Your task to perform on an android device: Search for logitech g pro on costco.com, select the first entry, and add it to the cart. Image 0: 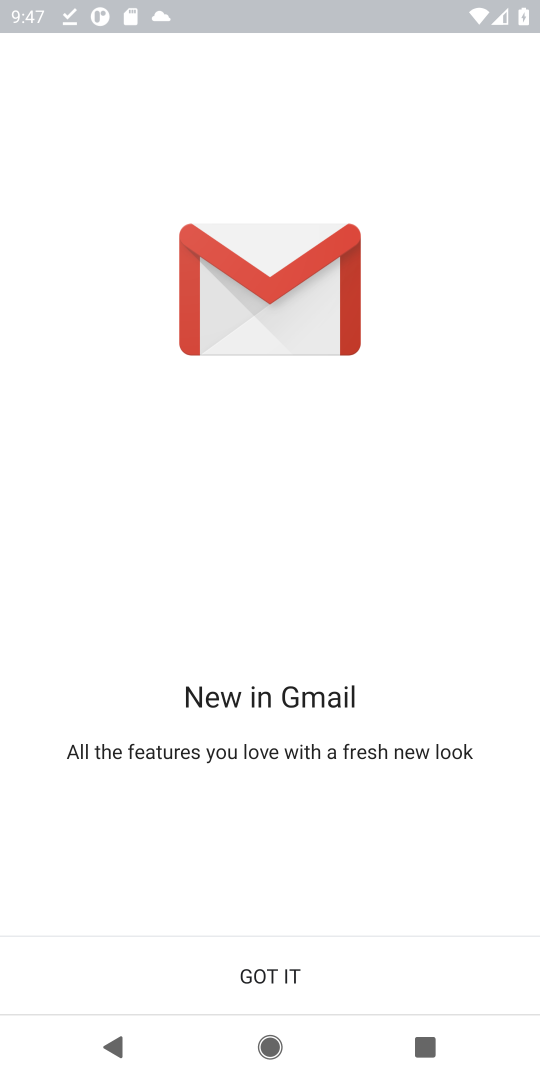
Step 0: press home button
Your task to perform on an android device: Search for logitech g pro on costco.com, select the first entry, and add it to the cart. Image 1: 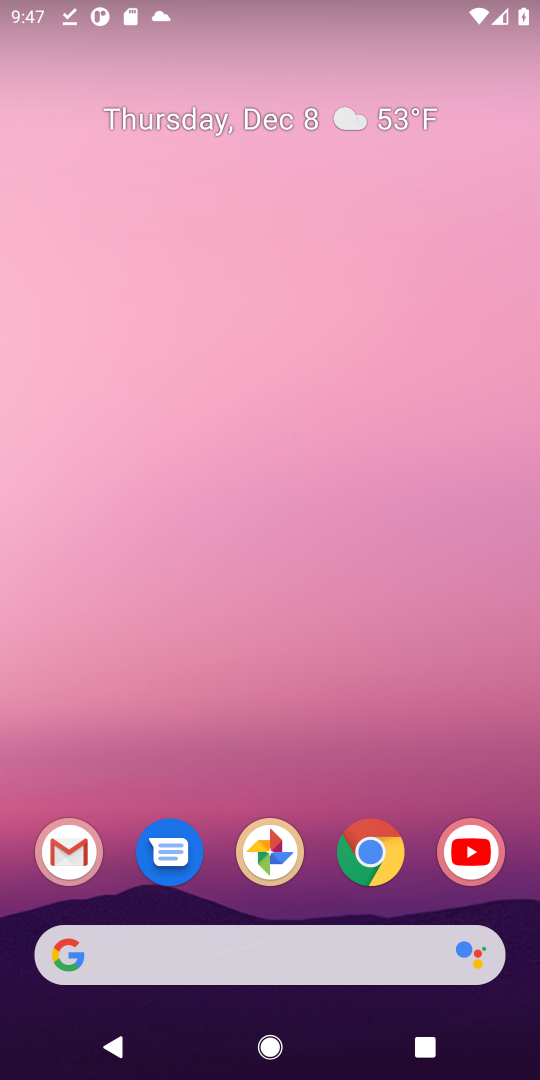
Step 1: click (219, 946)
Your task to perform on an android device: Search for logitech g pro on costco.com, select the first entry, and add it to the cart. Image 2: 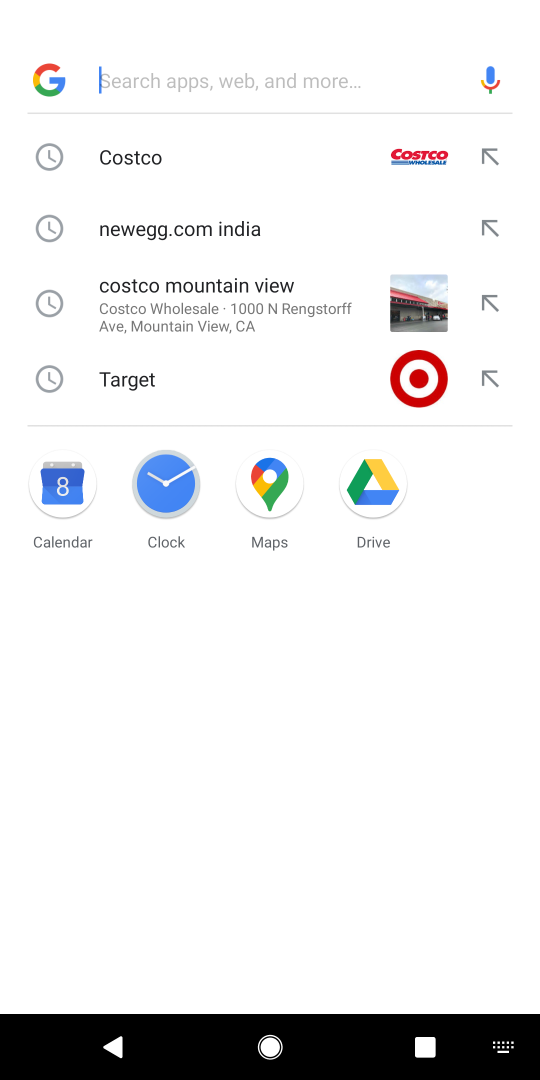
Step 2: click (151, 156)
Your task to perform on an android device: Search for logitech g pro on costco.com, select the first entry, and add it to the cart. Image 3: 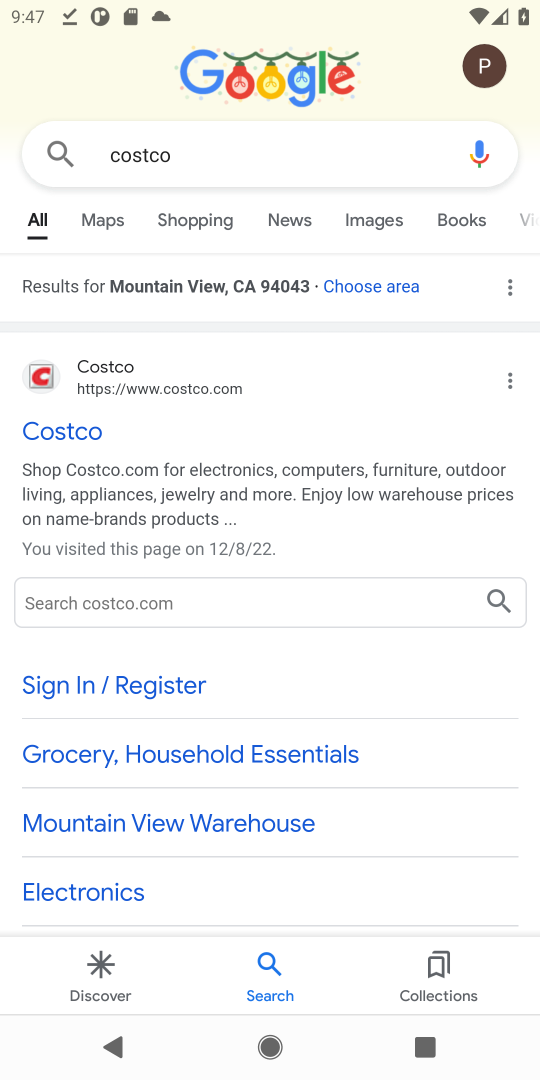
Step 3: click (27, 414)
Your task to perform on an android device: Search for logitech g pro on costco.com, select the first entry, and add it to the cart. Image 4: 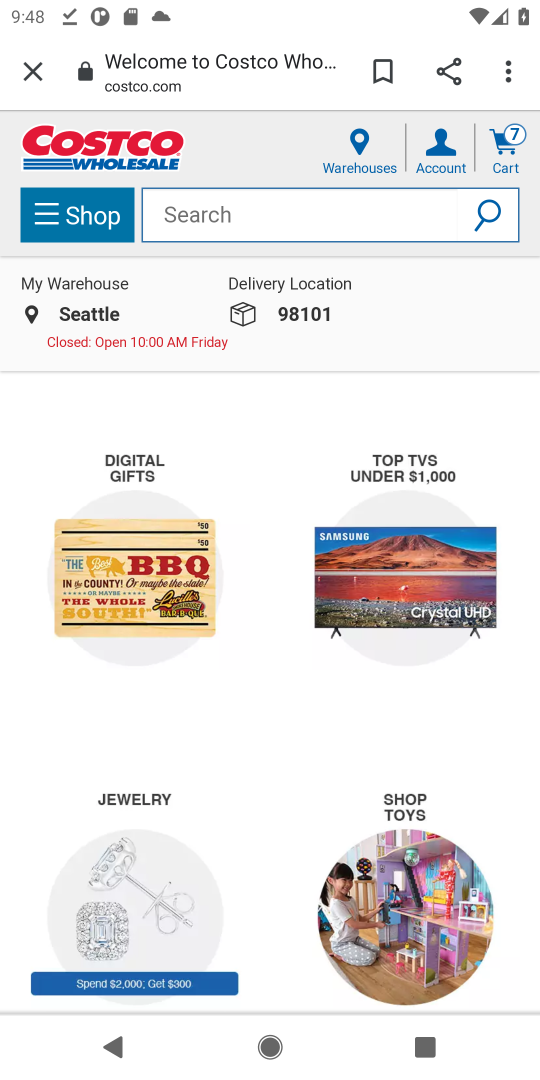
Step 4: click (300, 214)
Your task to perform on an android device: Search for logitech g pro on costco.com, select the first entry, and add it to the cart. Image 5: 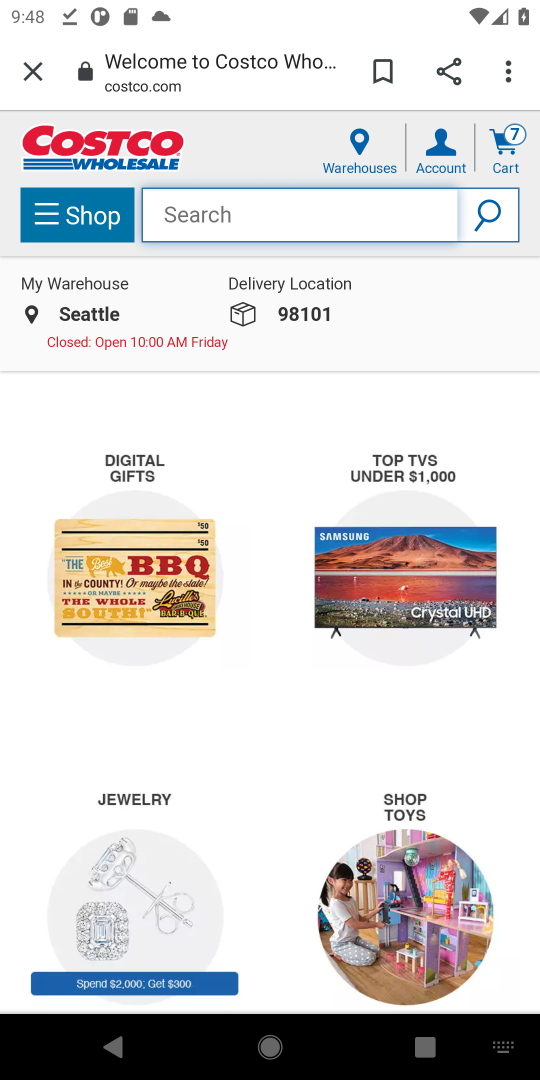
Step 5: type "logitech g pro"
Your task to perform on an android device: Search for logitech g pro on costco.com, select the first entry, and add it to the cart. Image 6: 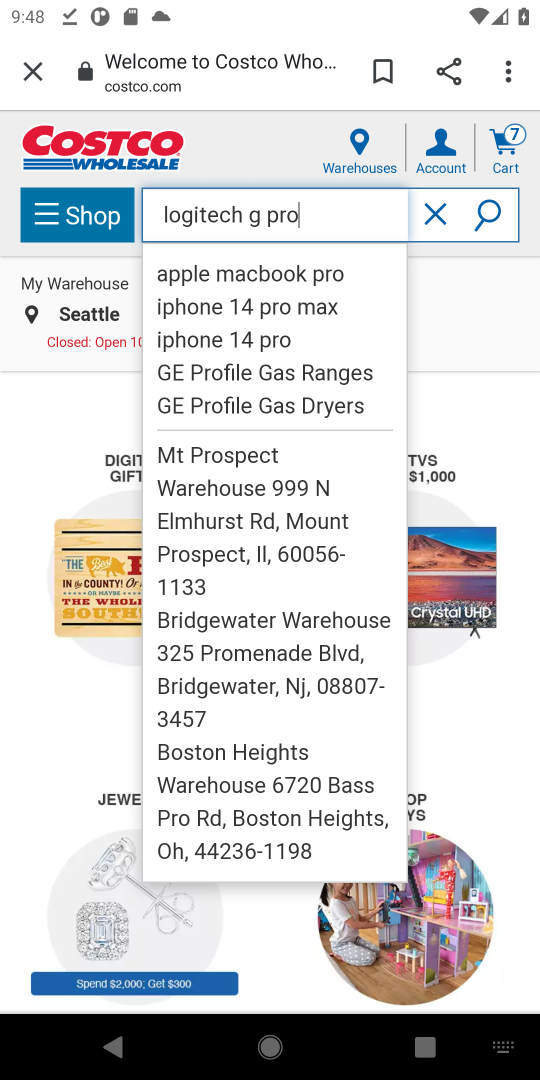
Step 6: click (493, 221)
Your task to perform on an android device: Search for logitech g pro on costco.com, select the first entry, and add it to the cart. Image 7: 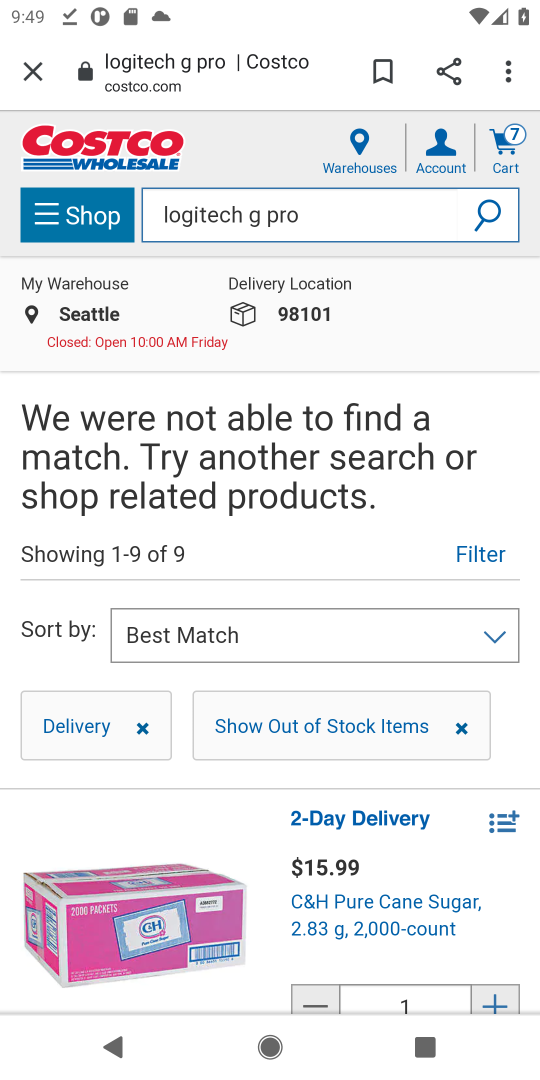
Step 7: task complete